Your task to perform on an android device: turn on airplane mode Image 0: 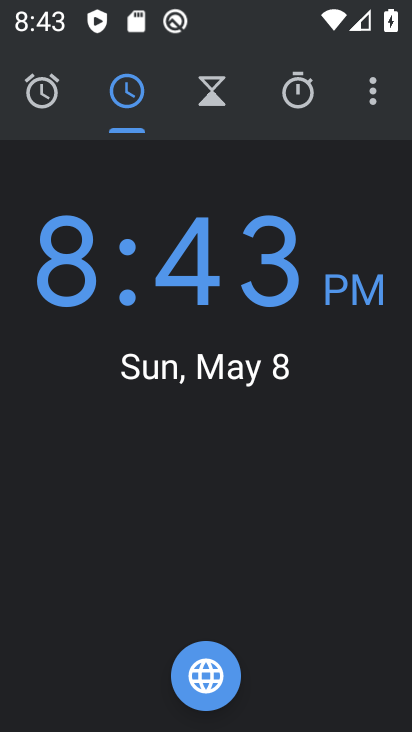
Step 0: press home button
Your task to perform on an android device: turn on airplane mode Image 1: 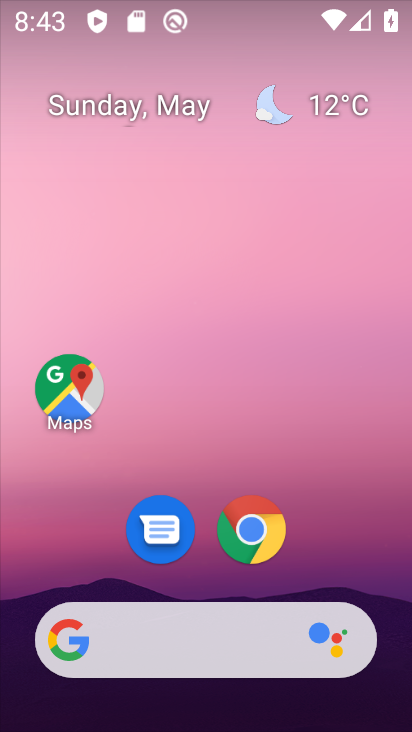
Step 1: drag from (321, 507) to (258, 13)
Your task to perform on an android device: turn on airplane mode Image 2: 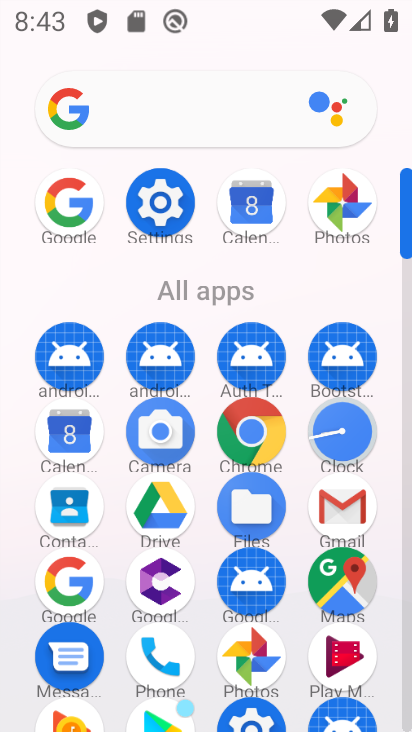
Step 2: click (169, 211)
Your task to perform on an android device: turn on airplane mode Image 3: 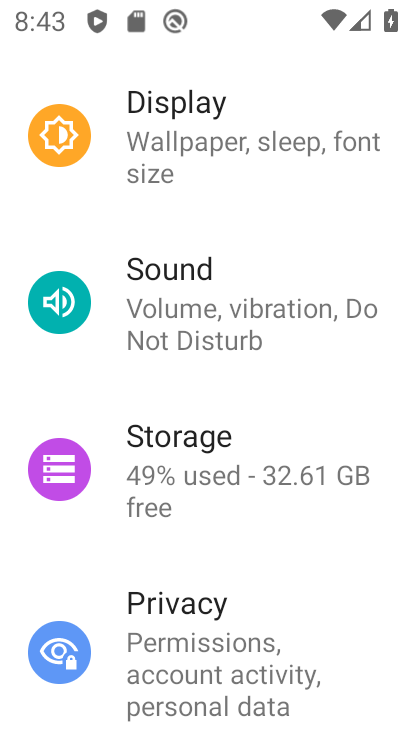
Step 3: drag from (284, 205) to (300, 670)
Your task to perform on an android device: turn on airplane mode Image 4: 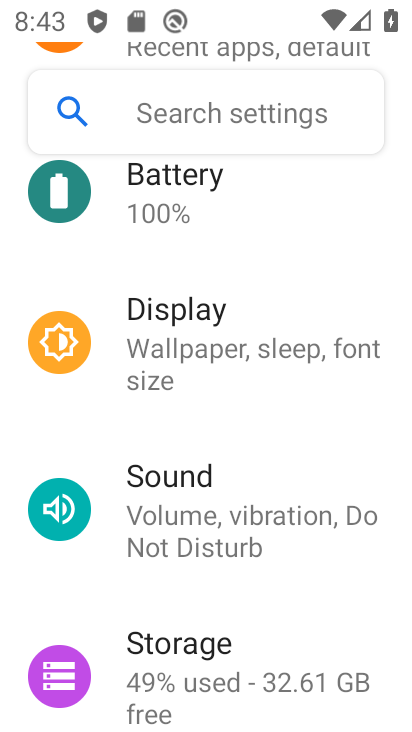
Step 4: drag from (235, 227) to (188, 713)
Your task to perform on an android device: turn on airplane mode Image 5: 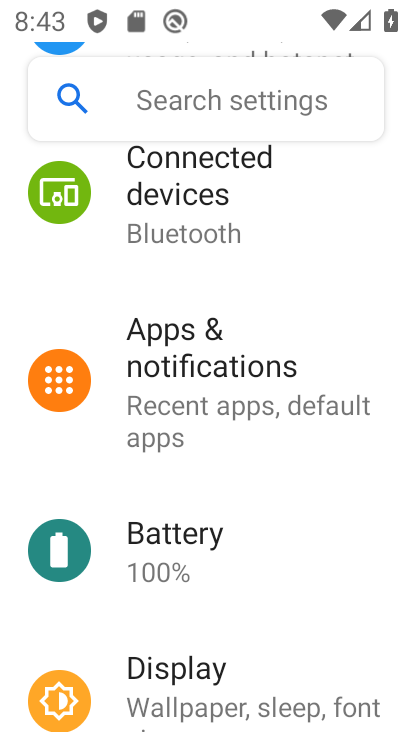
Step 5: drag from (208, 288) to (166, 727)
Your task to perform on an android device: turn on airplane mode Image 6: 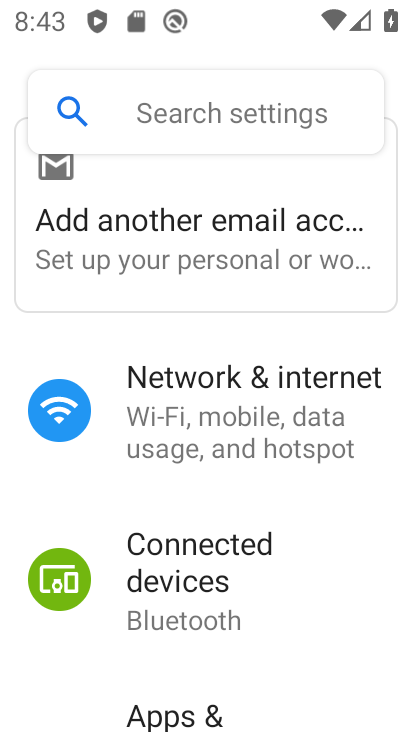
Step 6: click (196, 397)
Your task to perform on an android device: turn on airplane mode Image 7: 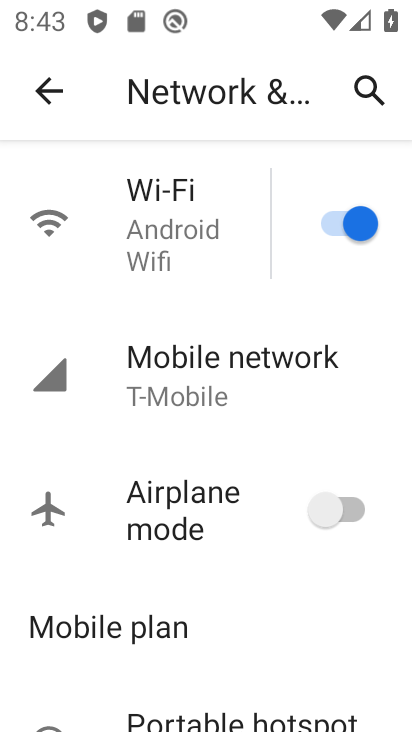
Step 7: click (343, 503)
Your task to perform on an android device: turn on airplane mode Image 8: 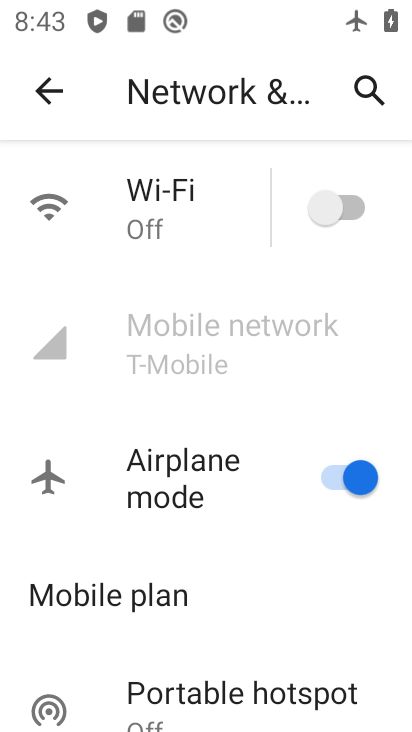
Step 8: task complete